Your task to perform on an android device: Open internet settings Image 0: 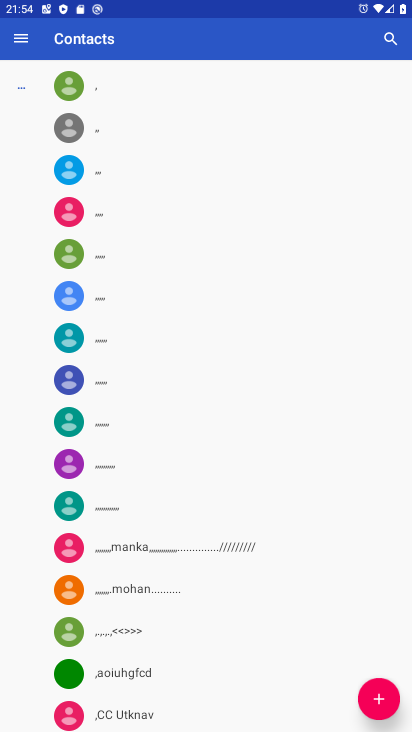
Step 0: press home button
Your task to perform on an android device: Open internet settings Image 1: 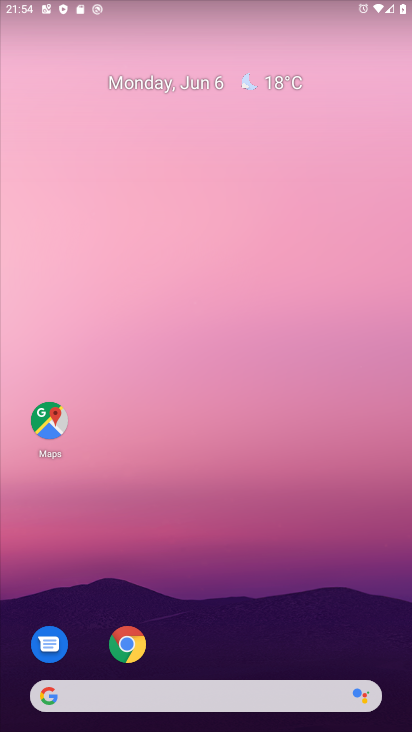
Step 1: drag from (361, 622) to (358, 171)
Your task to perform on an android device: Open internet settings Image 2: 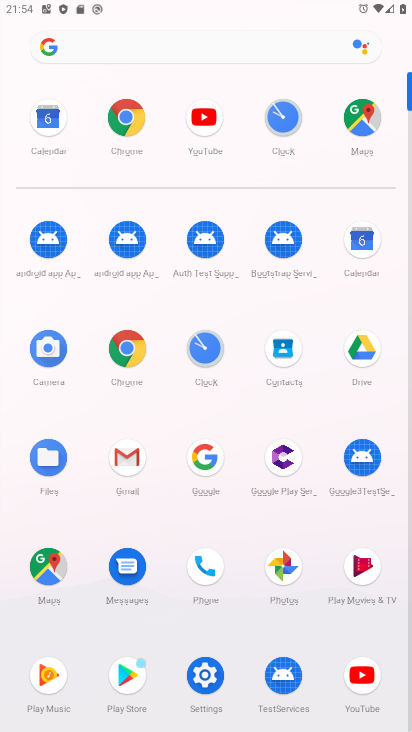
Step 2: click (205, 681)
Your task to perform on an android device: Open internet settings Image 3: 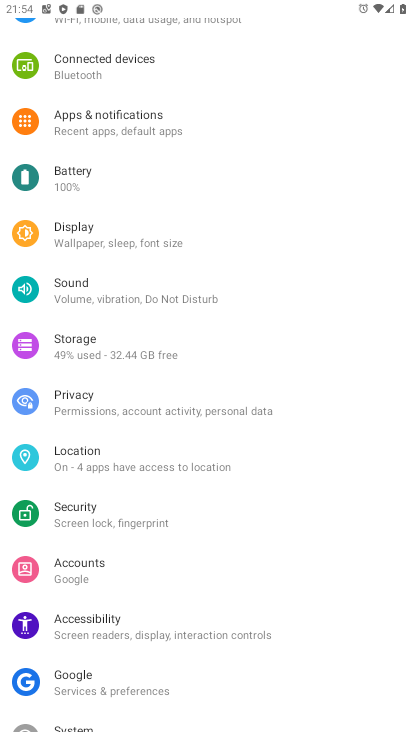
Step 3: drag from (188, 78) to (183, 366)
Your task to perform on an android device: Open internet settings Image 4: 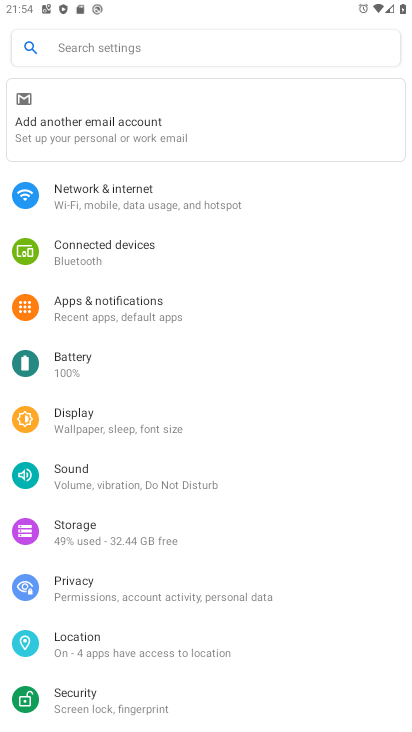
Step 4: click (100, 195)
Your task to perform on an android device: Open internet settings Image 5: 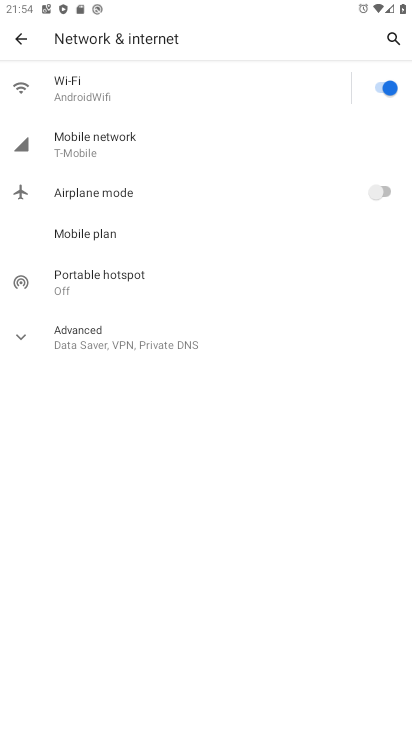
Step 5: task complete